Your task to perform on an android device: check data usage Image 0: 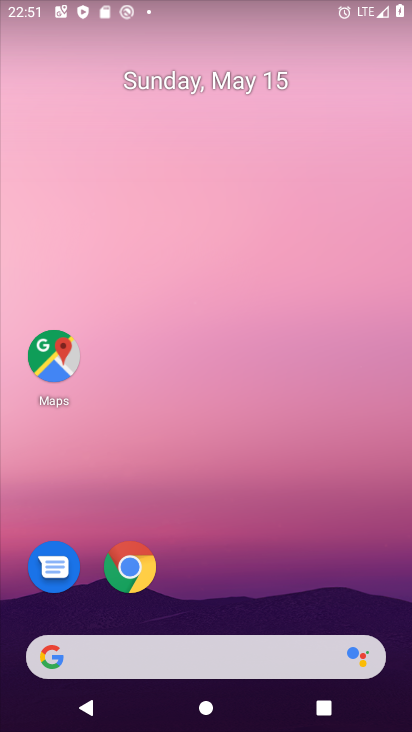
Step 0: drag from (128, 455) to (156, 41)
Your task to perform on an android device: check data usage Image 1: 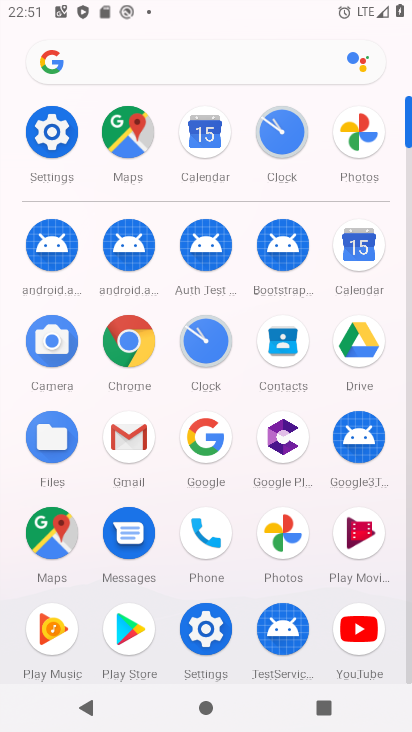
Step 1: click (42, 140)
Your task to perform on an android device: check data usage Image 2: 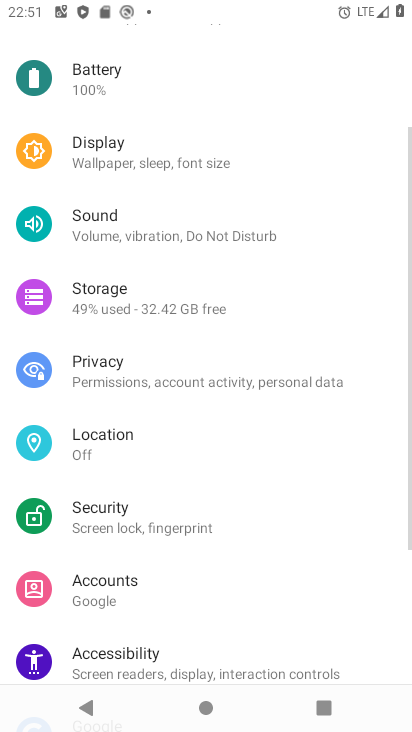
Step 2: drag from (258, 203) to (116, 696)
Your task to perform on an android device: check data usage Image 3: 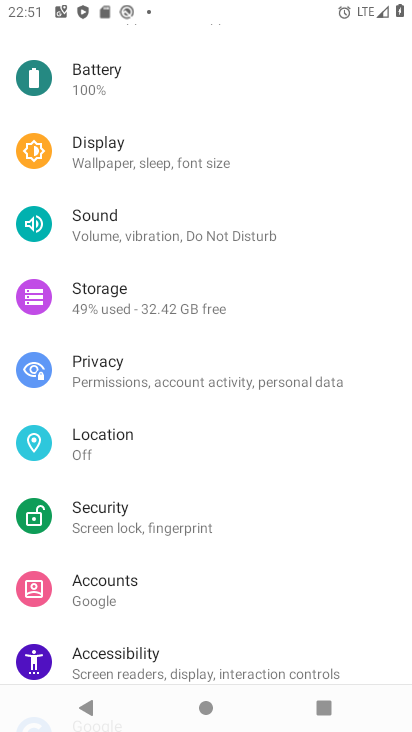
Step 3: drag from (239, 110) to (263, 597)
Your task to perform on an android device: check data usage Image 4: 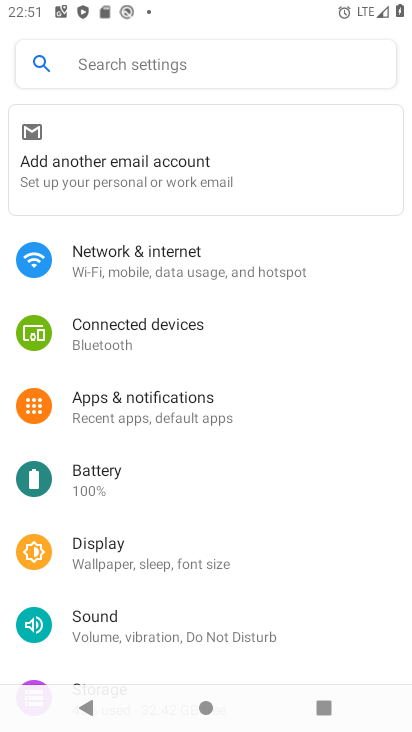
Step 4: click (167, 290)
Your task to perform on an android device: check data usage Image 5: 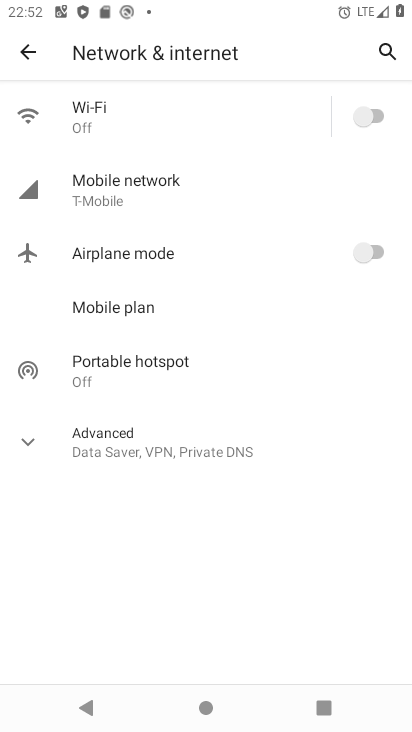
Step 5: click (191, 200)
Your task to perform on an android device: check data usage Image 6: 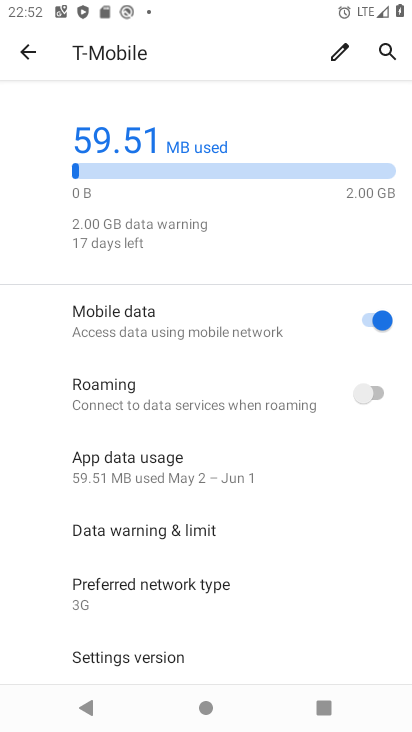
Step 6: task complete